Your task to perform on an android device: Open privacy settings Image 0: 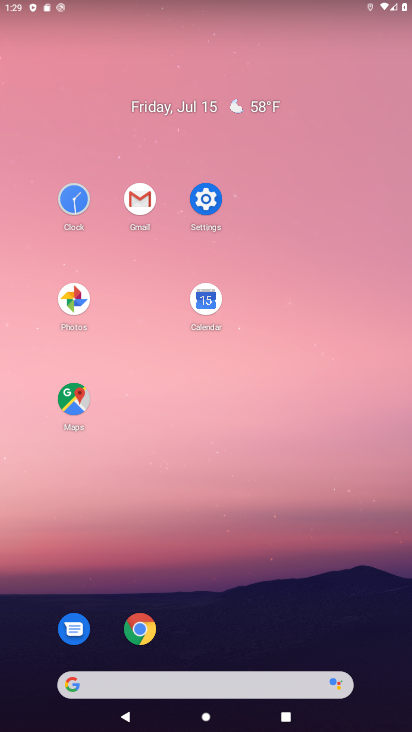
Step 0: click (210, 196)
Your task to perform on an android device: Open privacy settings Image 1: 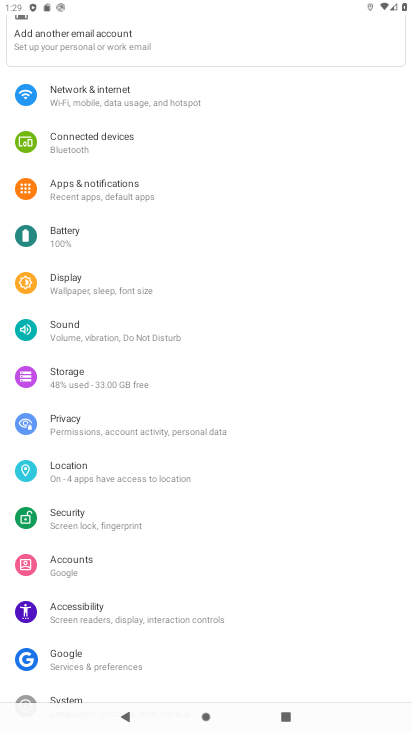
Step 1: click (144, 435)
Your task to perform on an android device: Open privacy settings Image 2: 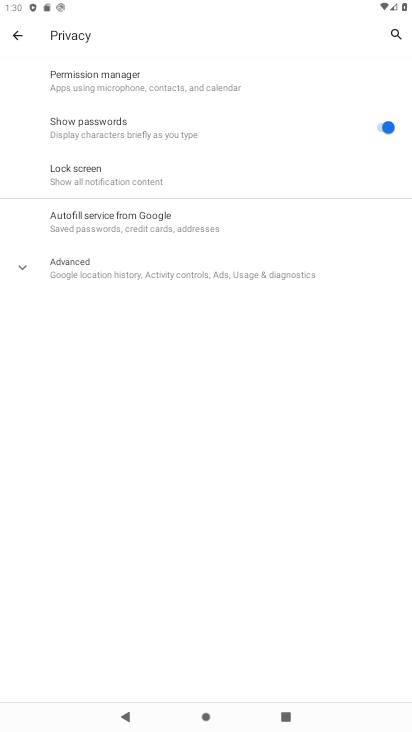
Step 2: task complete